Your task to perform on an android device: move a message to another label in the gmail app Image 0: 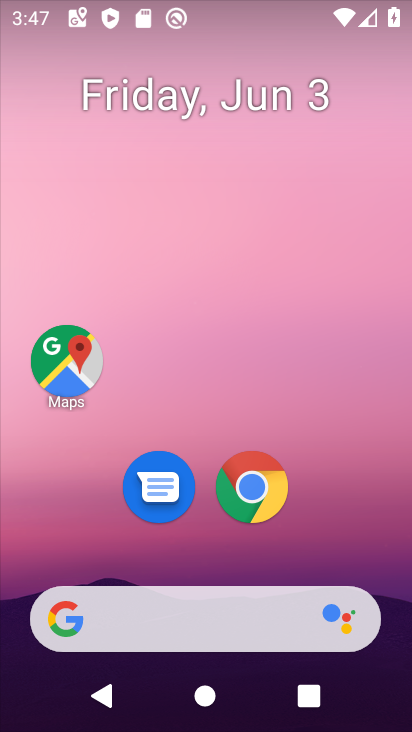
Step 0: drag from (205, 541) to (236, 231)
Your task to perform on an android device: move a message to another label in the gmail app Image 1: 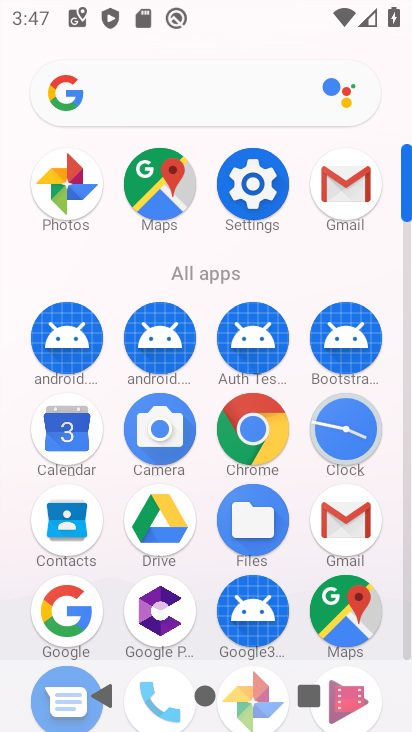
Step 1: click (339, 523)
Your task to perform on an android device: move a message to another label in the gmail app Image 2: 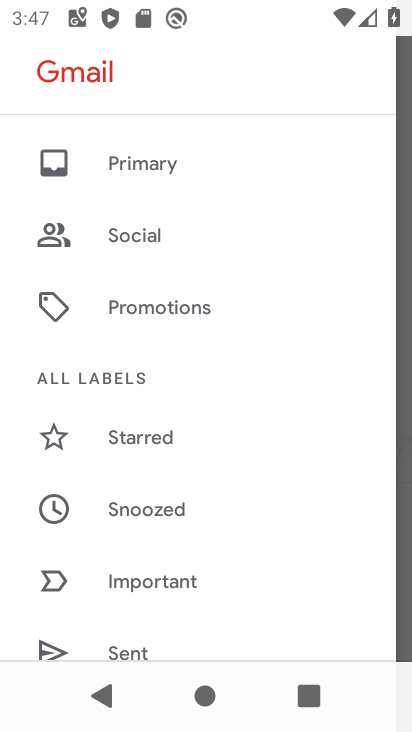
Step 2: drag from (196, 514) to (257, 224)
Your task to perform on an android device: move a message to another label in the gmail app Image 3: 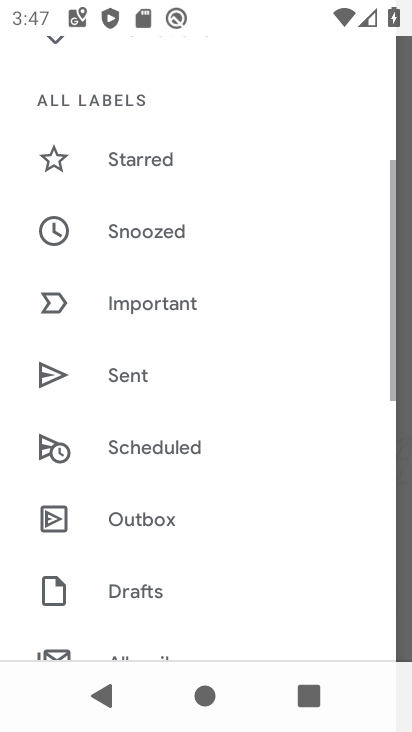
Step 3: drag from (259, 237) to (275, 727)
Your task to perform on an android device: move a message to another label in the gmail app Image 4: 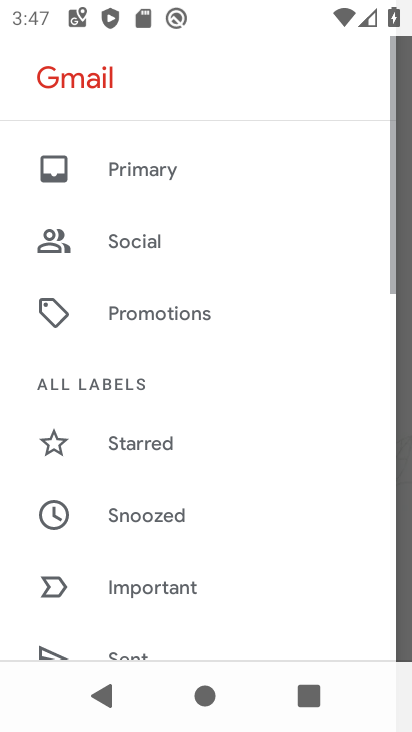
Step 4: click (148, 148)
Your task to perform on an android device: move a message to another label in the gmail app Image 5: 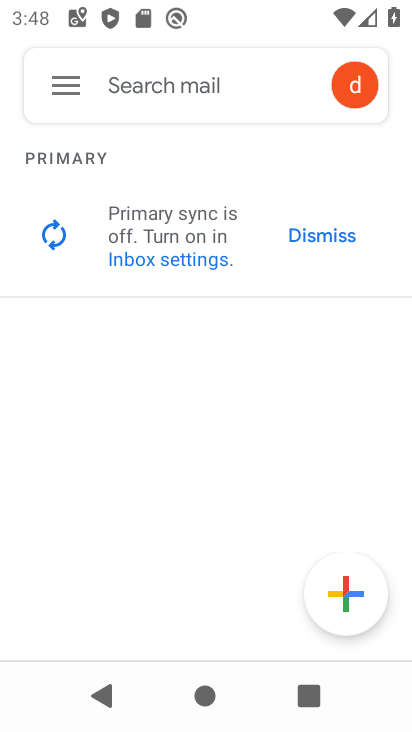
Step 5: task complete